Your task to perform on an android device: Open Maps and search for coffee Image 0: 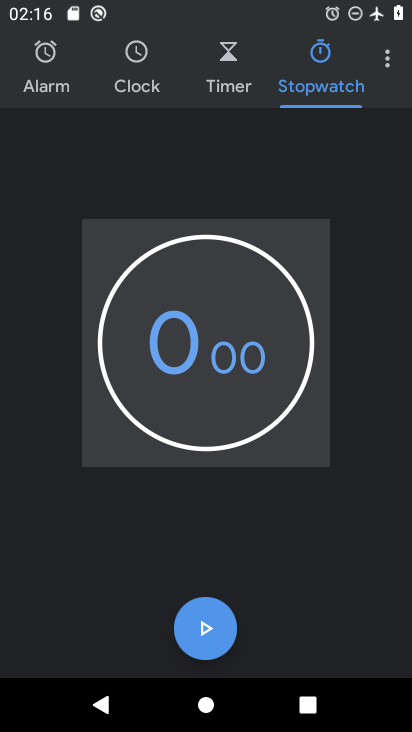
Step 0: press home button
Your task to perform on an android device: Open Maps and search for coffee Image 1: 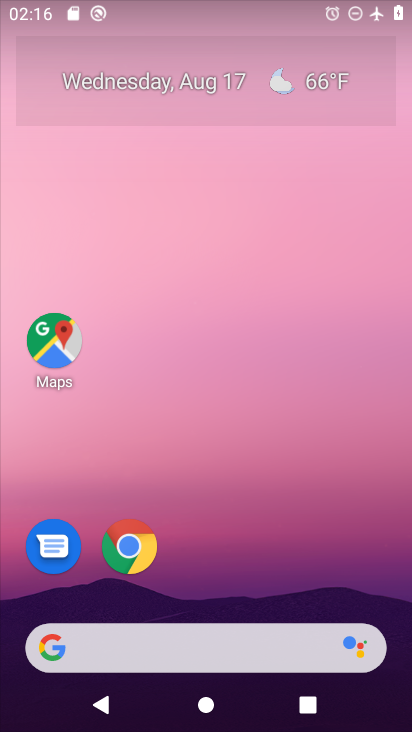
Step 1: click (50, 351)
Your task to perform on an android device: Open Maps and search for coffee Image 2: 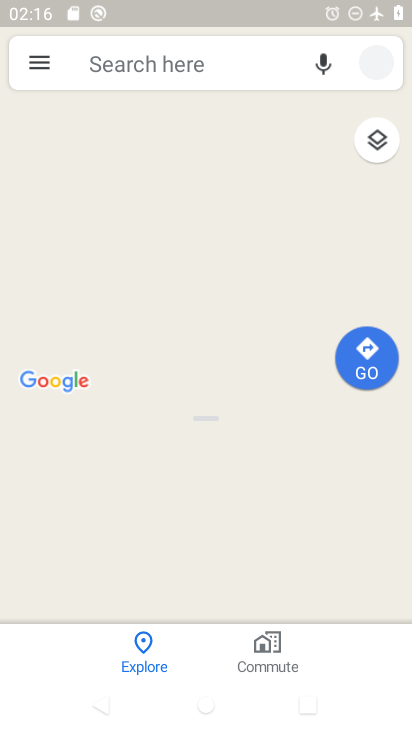
Step 2: click (119, 69)
Your task to perform on an android device: Open Maps and search for coffee Image 3: 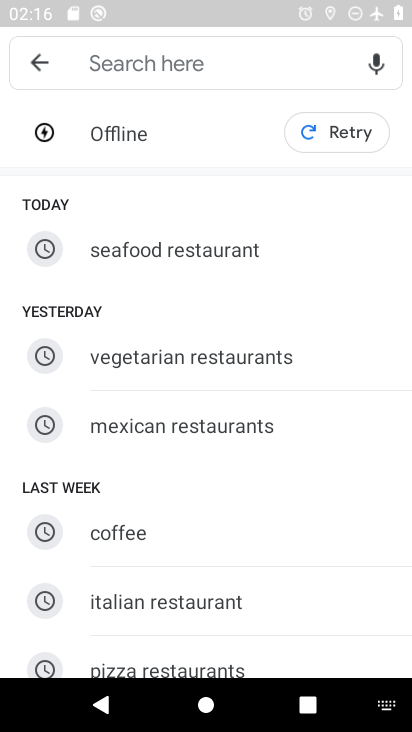
Step 3: click (132, 530)
Your task to perform on an android device: Open Maps and search for coffee Image 4: 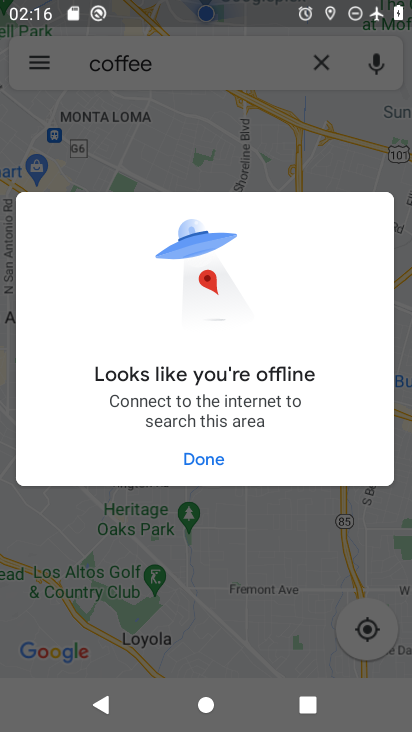
Step 4: click (176, 456)
Your task to perform on an android device: Open Maps and search for coffee Image 5: 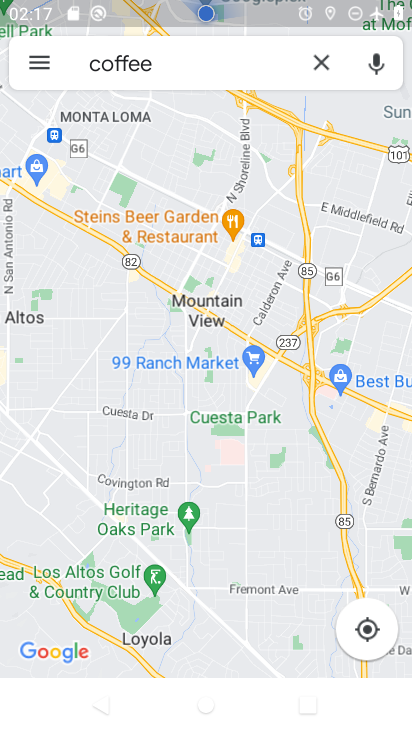
Step 5: task complete